Your task to perform on an android device: turn on sleep mode Image 0: 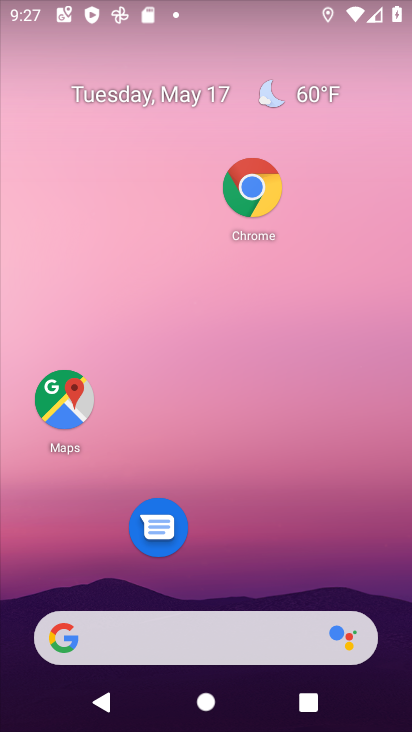
Step 0: drag from (374, 546) to (339, 79)
Your task to perform on an android device: turn on sleep mode Image 1: 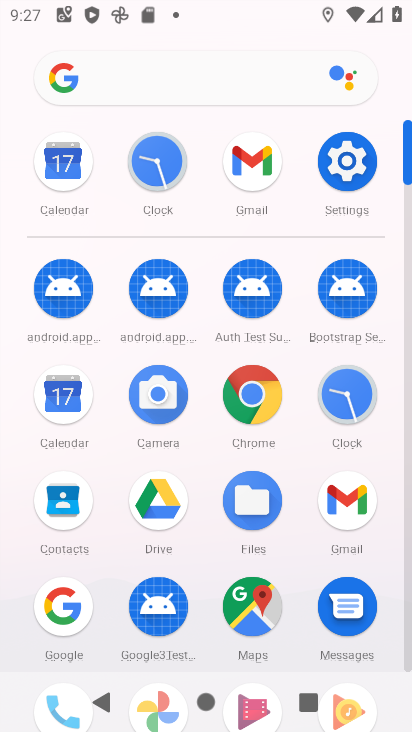
Step 1: click (338, 218)
Your task to perform on an android device: turn on sleep mode Image 2: 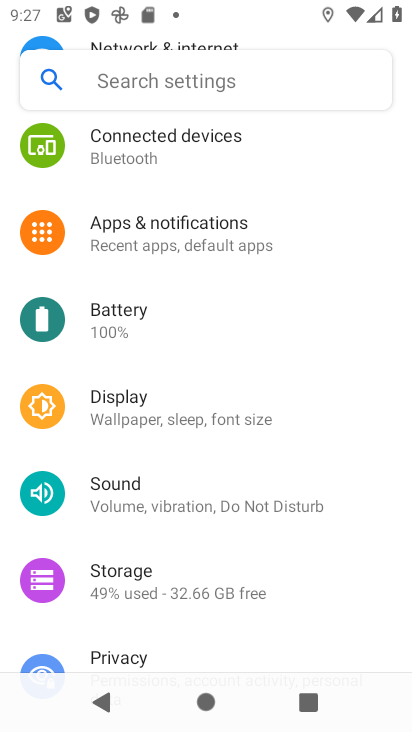
Step 2: click (192, 428)
Your task to perform on an android device: turn on sleep mode Image 3: 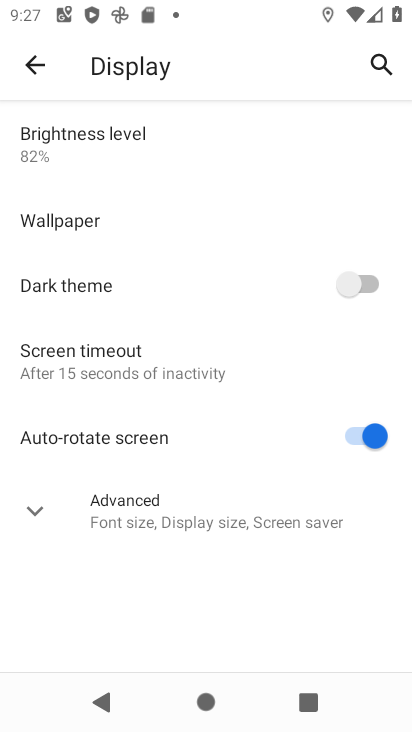
Step 3: click (234, 363)
Your task to perform on an android device: turn on sleep mode Image 4: 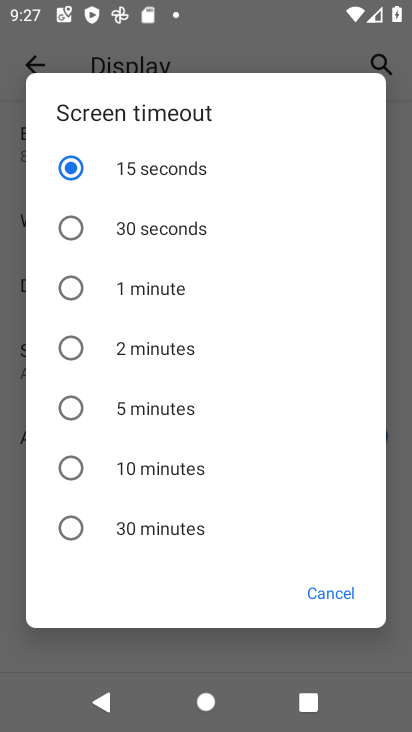
Step 4: click (216, 161)
Your task to perform on an android device: turn on sleep mode Image 5: 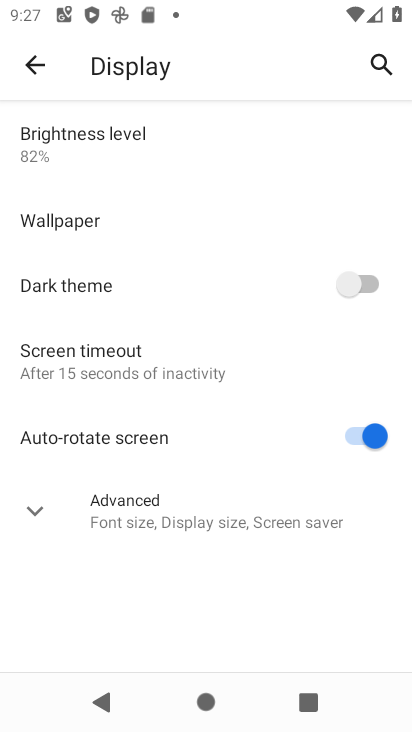
Step 5: task complete